Your task to perform on an android device: turn on javascript in the chrome app Image 0: 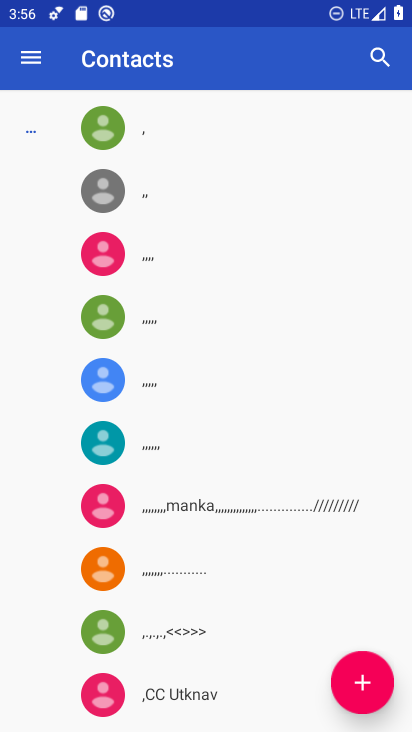
Step 0: press home button
Your task to perform on an android device: turn on javascript in the chrome app Image 1: 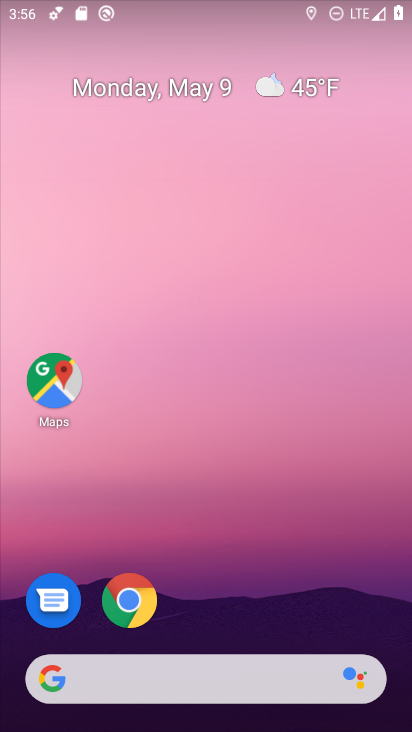
Step 1: click (136, 604)
Your task to perform on an android device: turn on javascript in the chrome app Image 2: 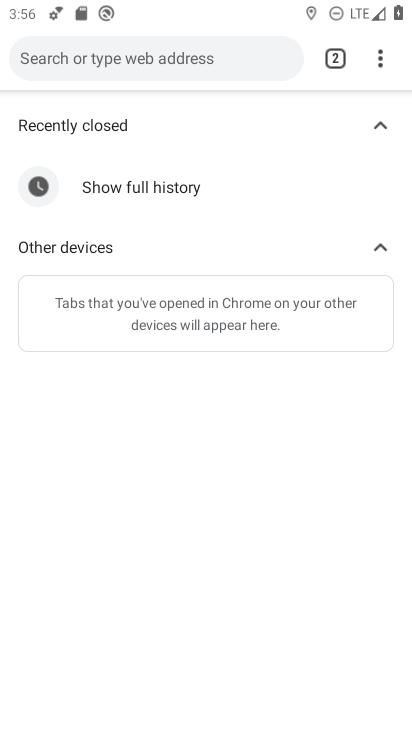
Step 2: click (378, 52)
Your task to perform on an android device: turn on javascript in the chrome app Image 3: 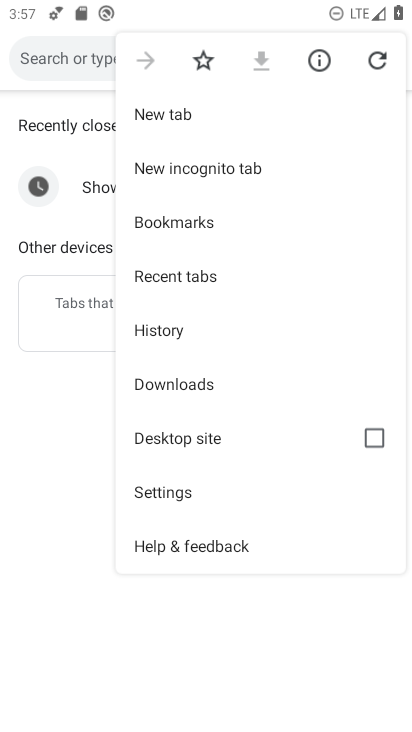
Step 3: click (172, 498)
Your task to perform on an android device: turn on javascript in the chrome app Image 4: 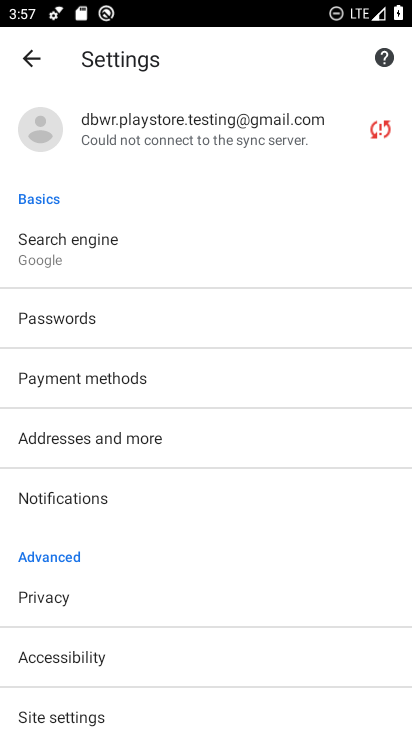
Step 4: drag from (155, 470) to (200, 231)
Your task to perform on an android device: turn on javascript in the chrome app Image 5: 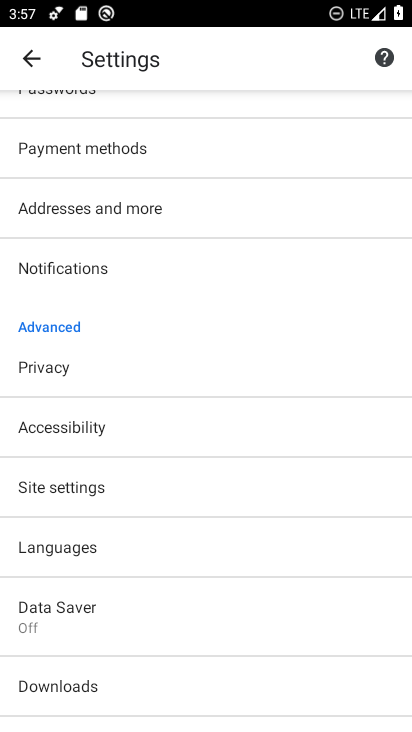
Step 5: click (78, 481)
Your task to perform on an android device: turn on javascript in the chrome app Image 6: 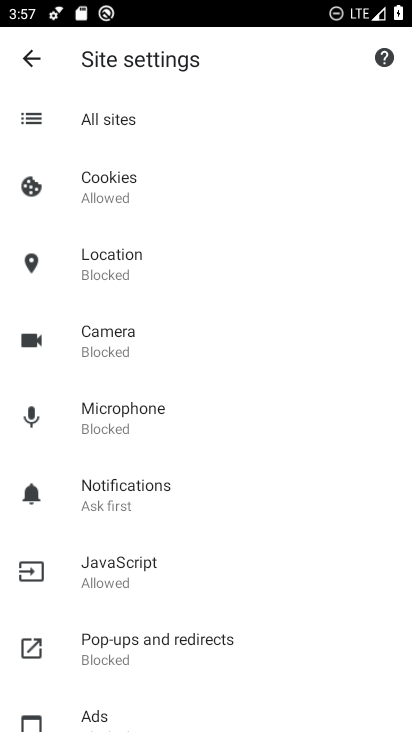
Step 6: click (130, 568)
Your task to perform on an android device: turn on javascript in the chrome app Image 7: 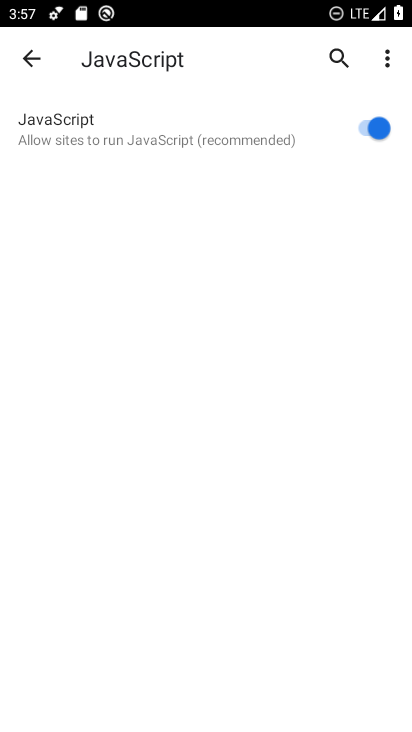
Step 7: task complete